Your task to perform on an android device: What's on my calendar today? Image 0: 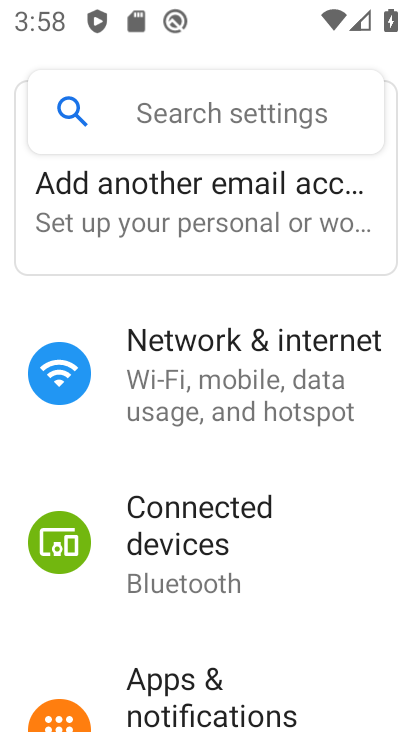
Step 0: press home button
Your task to perform on an android device: What's on my calendar today? Image 1: 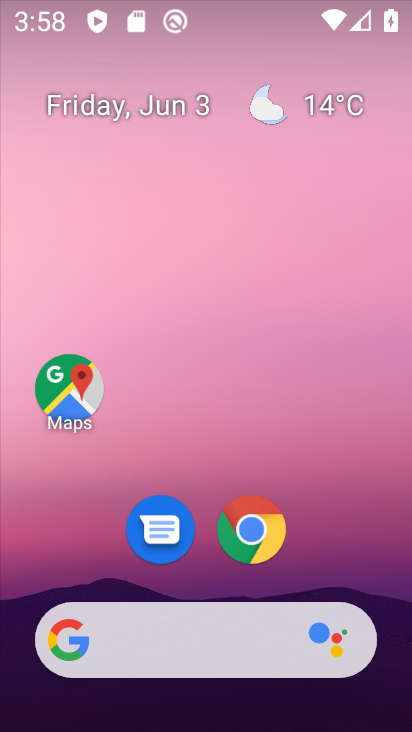
Step 1: drag from (337, 521) to (307, 26)
Your task to perform on an android device: What's on my calendar today? Image 2: 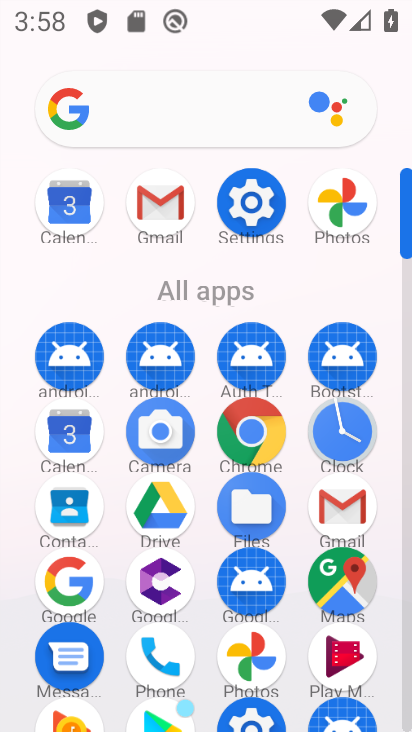
Step 2: click (42, 222)
Your task to perform on an android device: What's on my calendar today? Image 3: 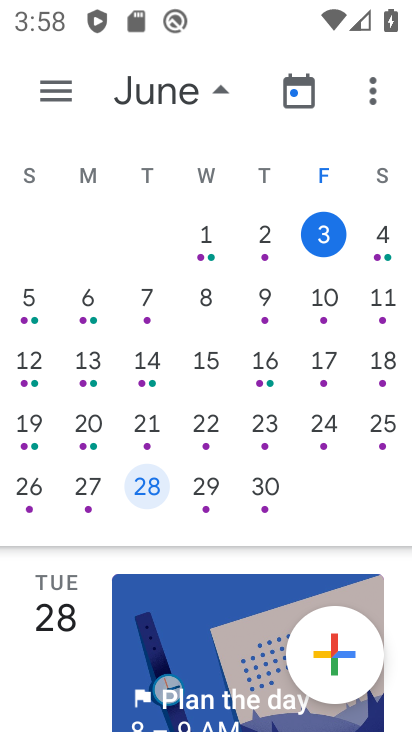
Step 3: task complete